Your task to perform on an android device: Go to accessibility settings Image 0: 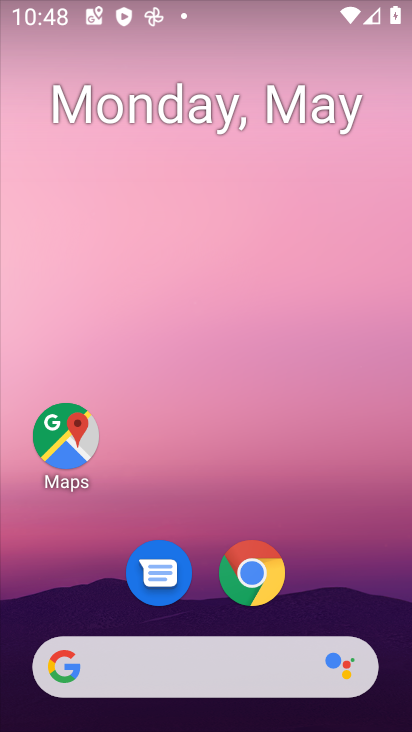
Step 0: drag from (355, 567) to (268, 32)
Your task to perform on an android device: Go to accessibility settings Image 1: 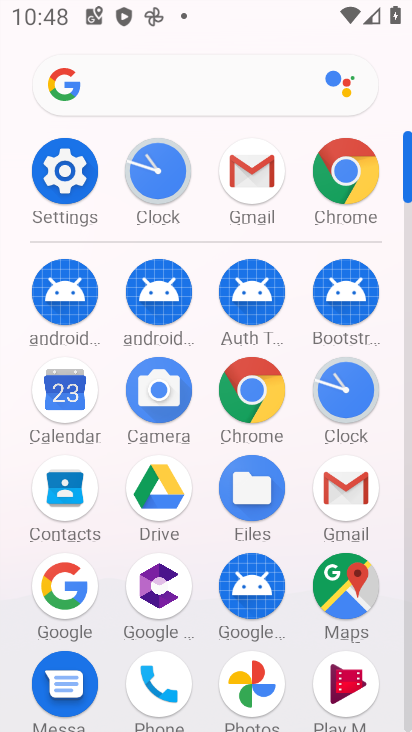
Step 1: click (66, 186)
Your task to perform on an android device: Go to accessibility settings Image 2: 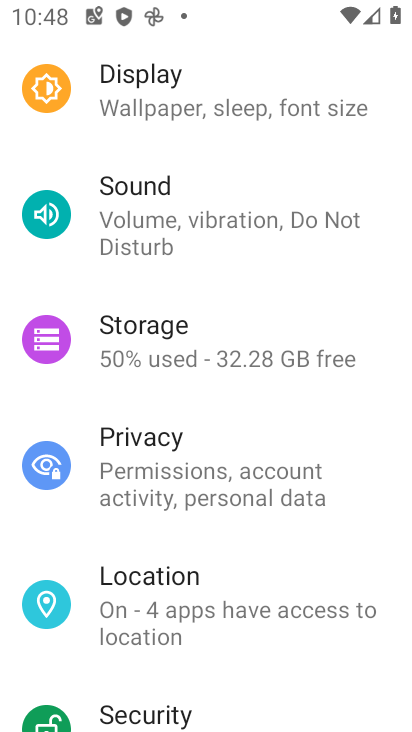
Step 2: drag from (265, 552) to (255, 402)
Your task to perform on an android device: Go to accessibility settings Image 3: 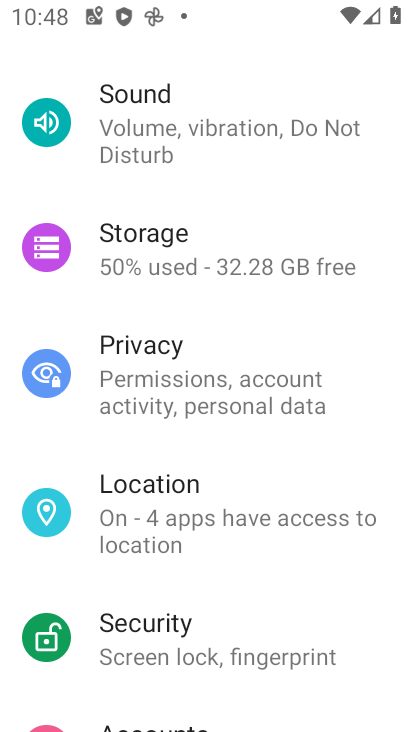
Step 3: drag from (279, 658) to (280, 490)
Your task to perform on an android device: Go to accessibility settings Image 4: 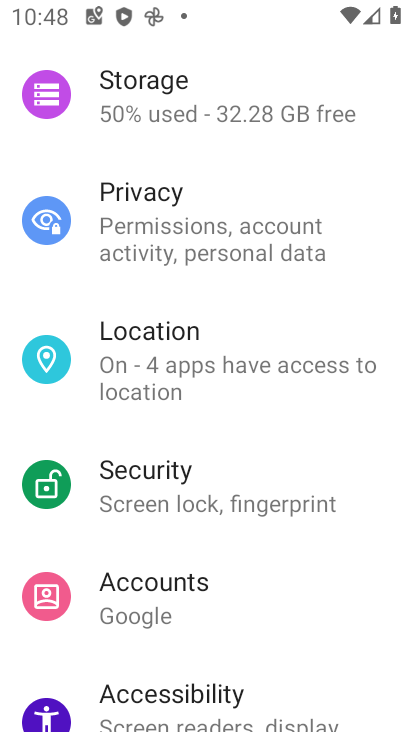
Step 4: click (164, 685)
Your task to perform on an android device: Go to accessibility settings Image 5: 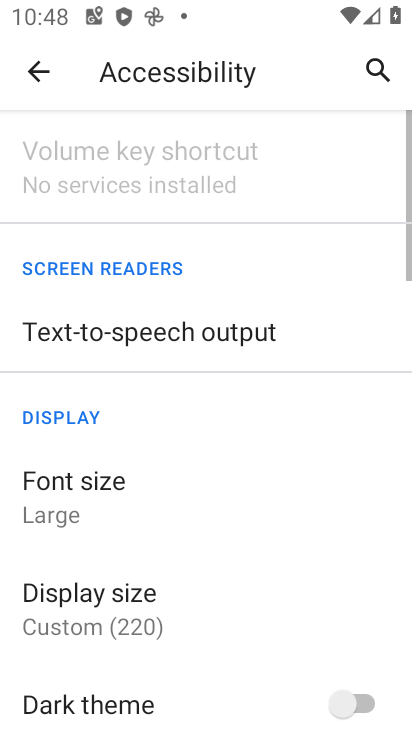
Step 5: task complete